Your task to perform on an android device: Open maps Image 0: 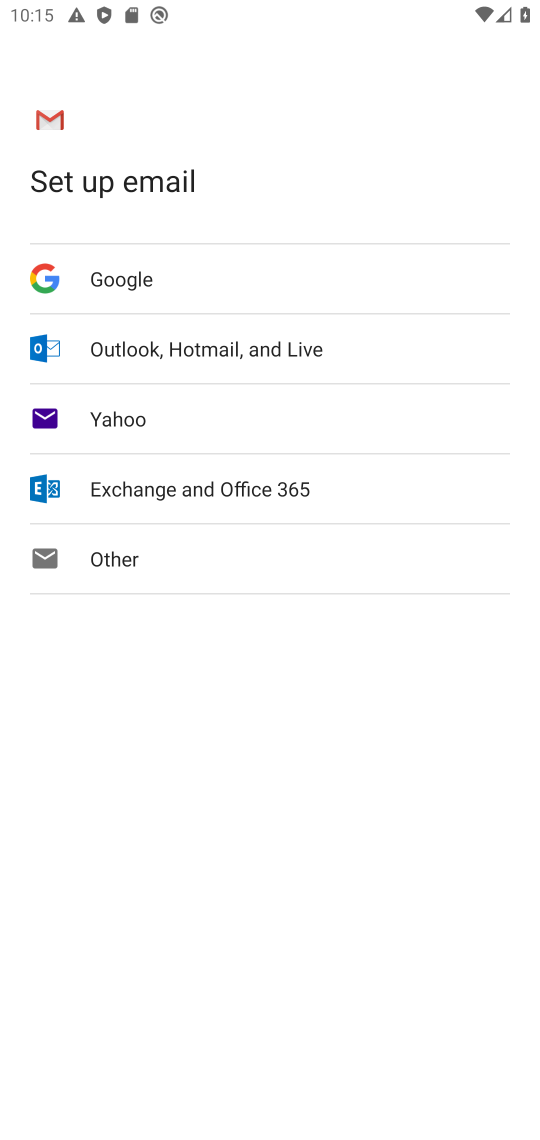
Step 0: press home button
Your task to perform on an android device: Open maps Image 1: 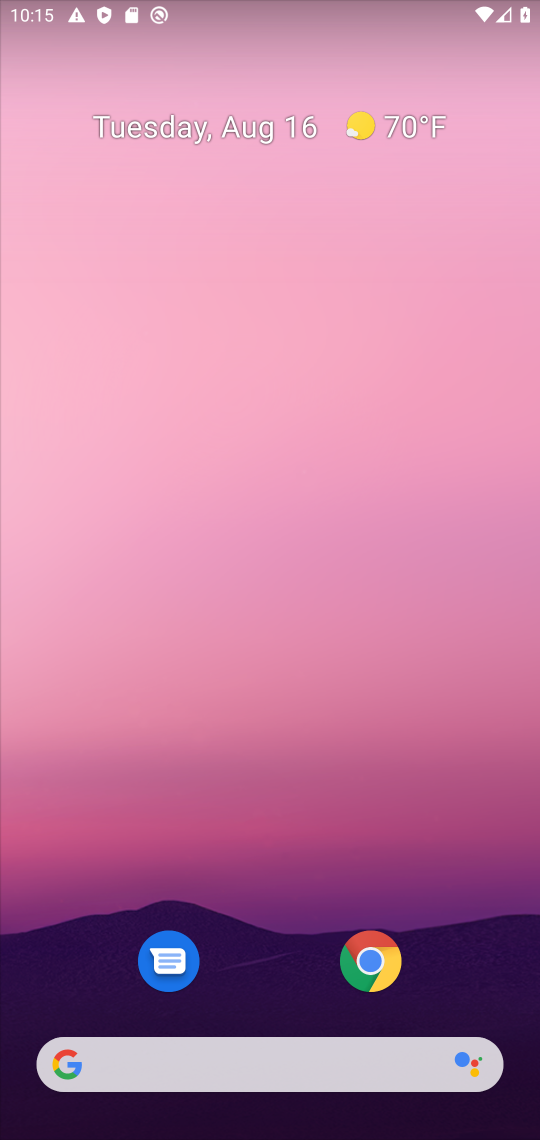
Step 1: drag from (280, 970) to (349, 248)
Your task to perform on an android device: Open maps Image 2: 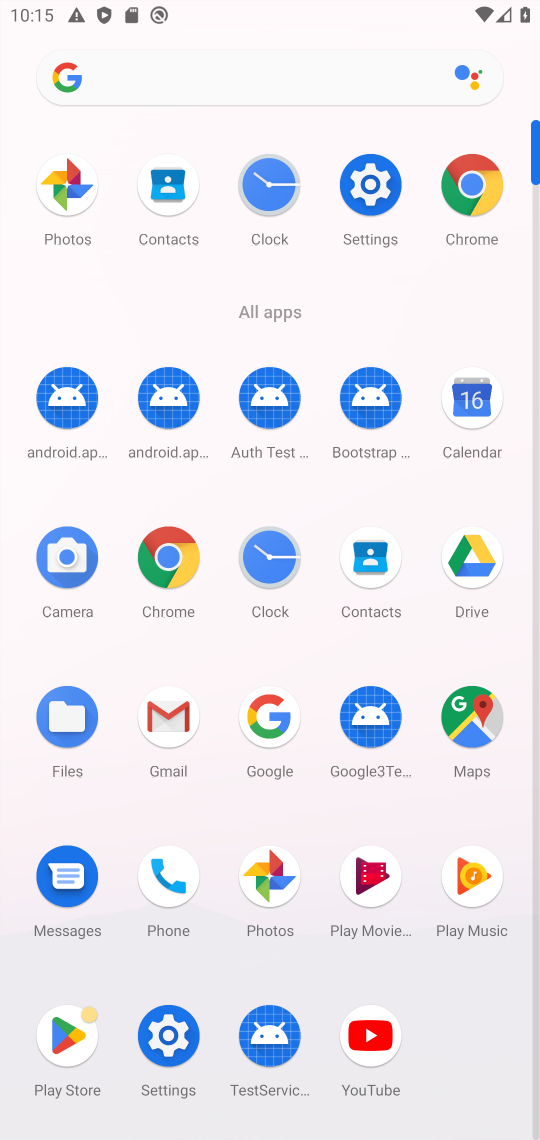
Step 2: click (459, 718)
Your task to perform on an android device: Open maps Image 3: 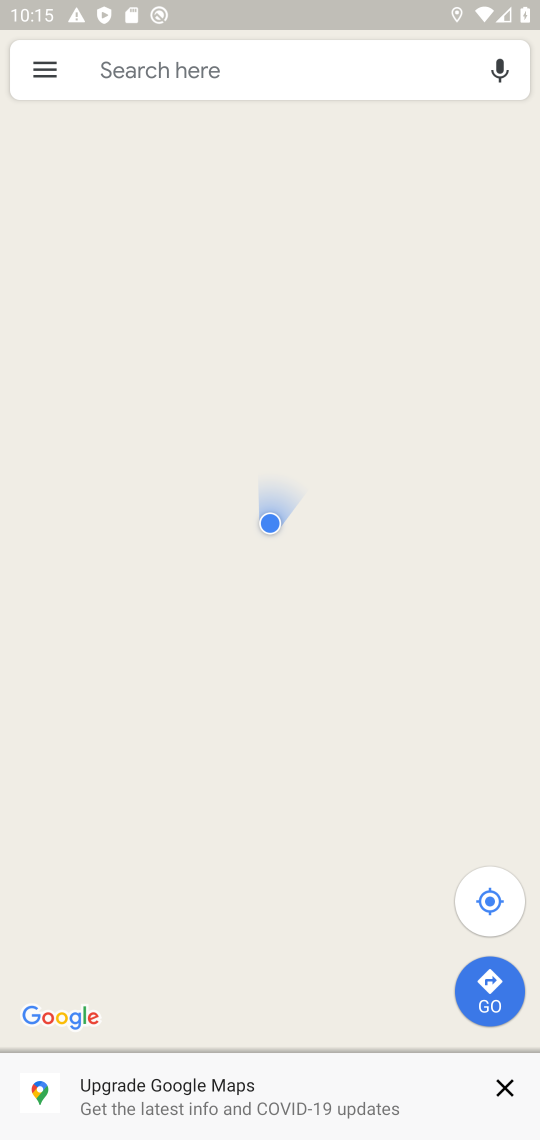
Step 3: task complete